Your task to perform on an android device: turn on data saver in the chrome app Image 0: 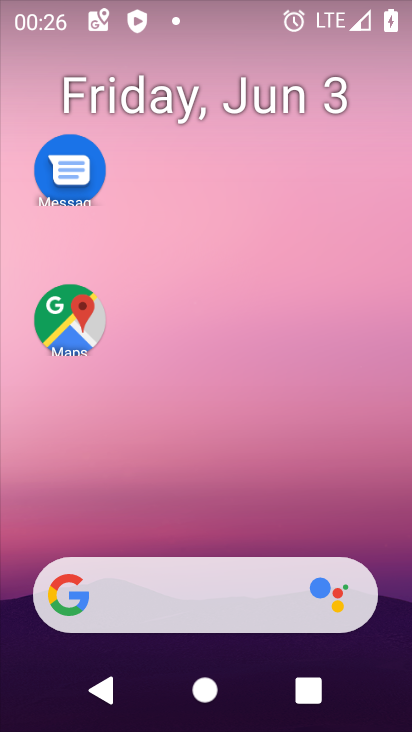
Step 0: press home button
Your task to perform on an android device: turn on data saver in the chrome app Image 1: 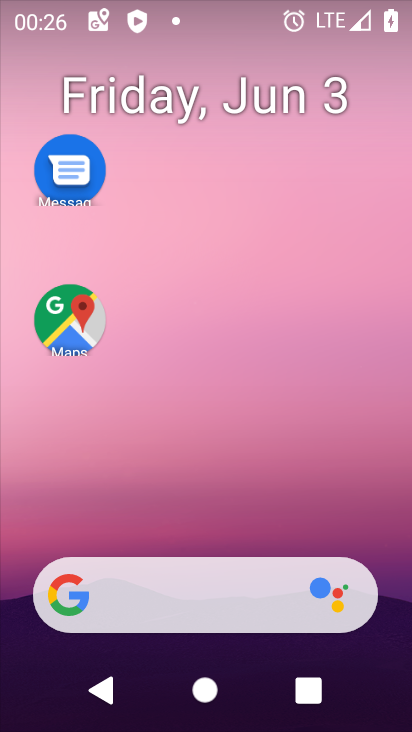
Step 1: drag from (328, 502) to (297, 14)
Your task to perform on an android device: turn on data saver in the chrome app Image 2: 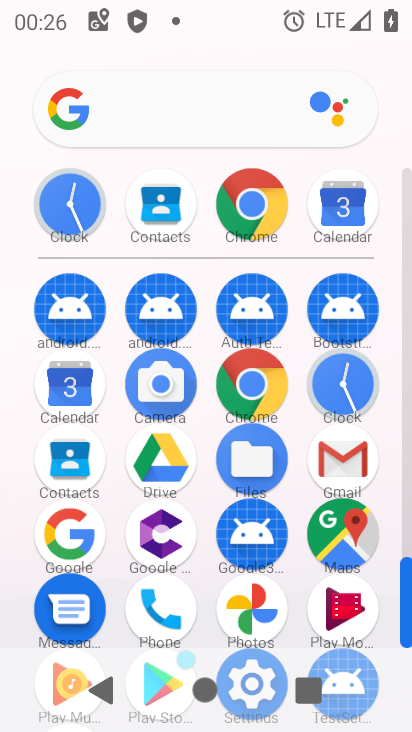
Step 2: click (257, 377)
Your task to perform on an android device: turn on data saver in the chrome app Image 3: 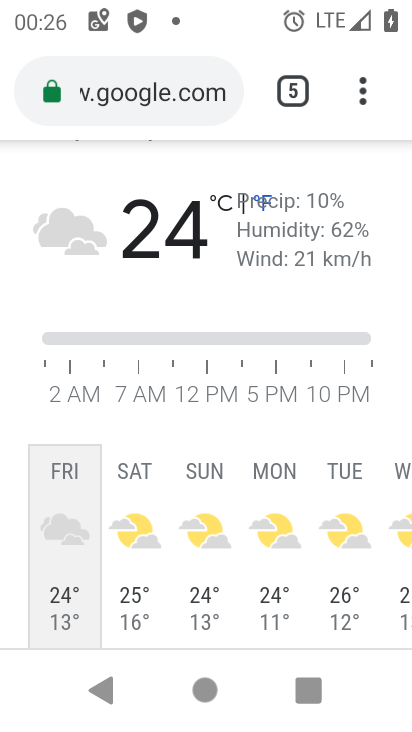
Step 3: press home button
Your task to perform on an android device: turn on data saver in the chrome app Image 4: 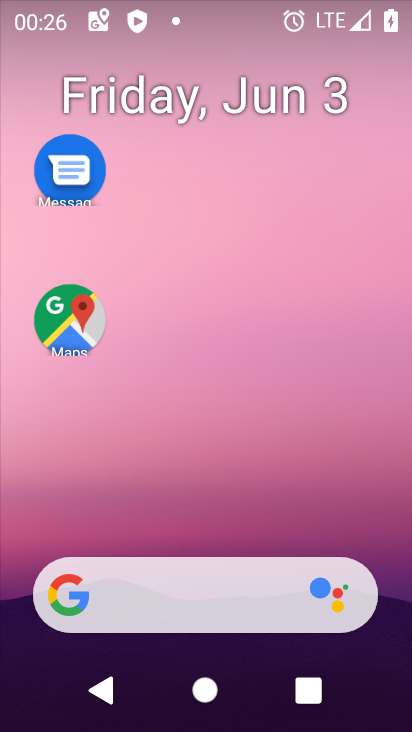
Step 4: drag from (257, 605) to (238, 88)
Your task to perform on an android device: turn on data saver in the chrome app Image 5: 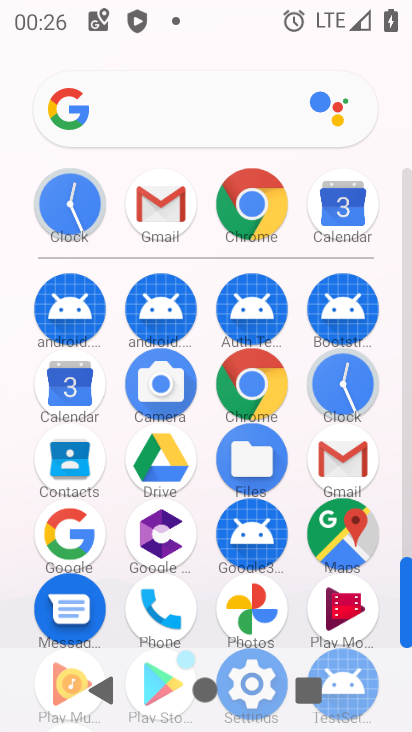
Step 5: click (264, 205)
Your task to perform on an android device: turn on data saver in the chrome app Image 6: 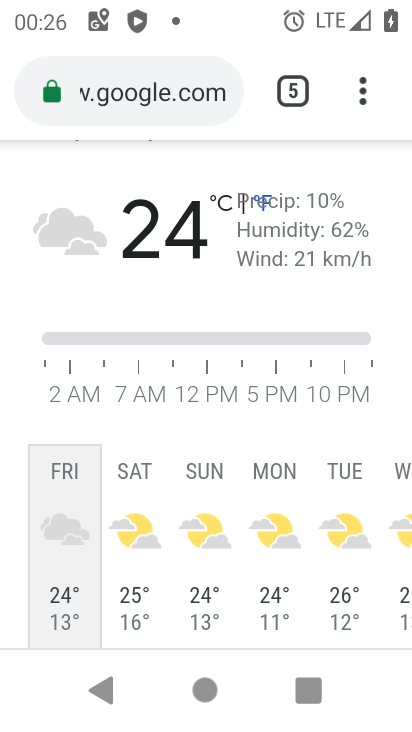
Step 6: click (352, 80)
Your task to perform on an android device: turn on data saver in the chrome app Image 7: 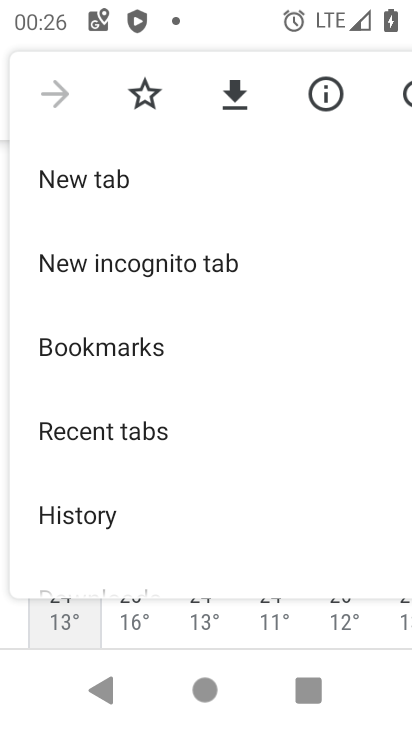
Step 7: drag from (154, 574) to (198, 191)
Your task to perform on an android device: turn on data saver in the chrome app Image 8: 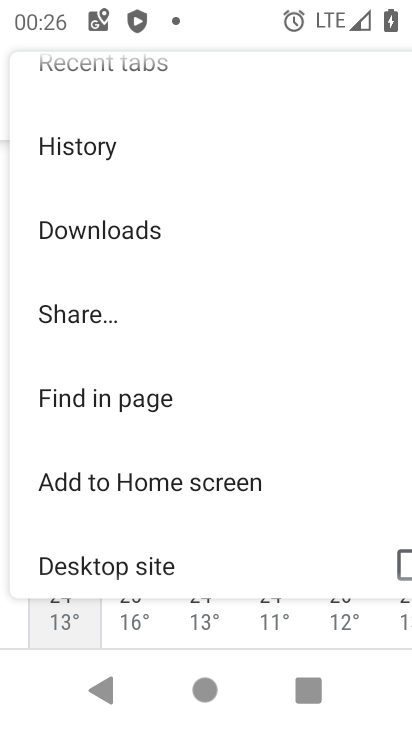
Step 8: drag from (154, 510) to (246, 144)
Your task to perform on an android device: turn on data saver in the chrome app Image 9: 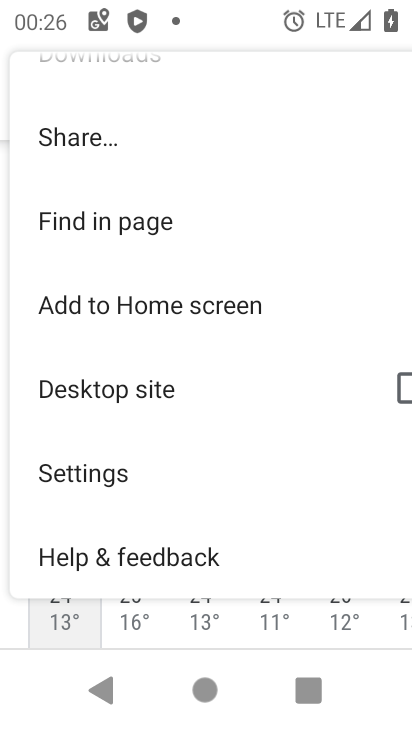
Step 9: click (110, 481)
Your task to perform on an android device: turn on data saver in the chrome app Image 10: 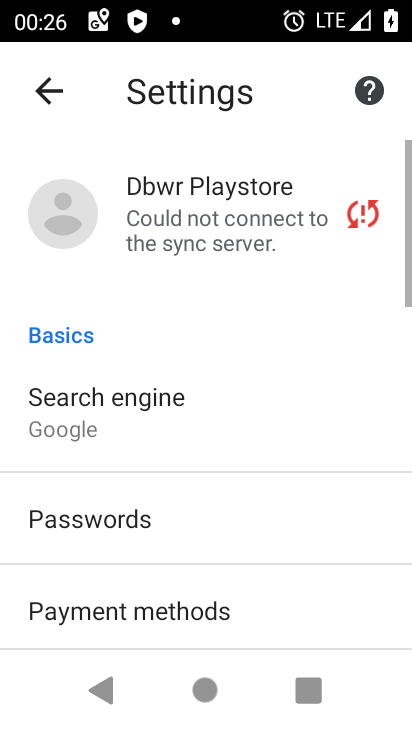
Step 10: drag from (243, 583) to (316, 131)
Your task to perform on an android device: turn on data saver in the chrome app Image 11: 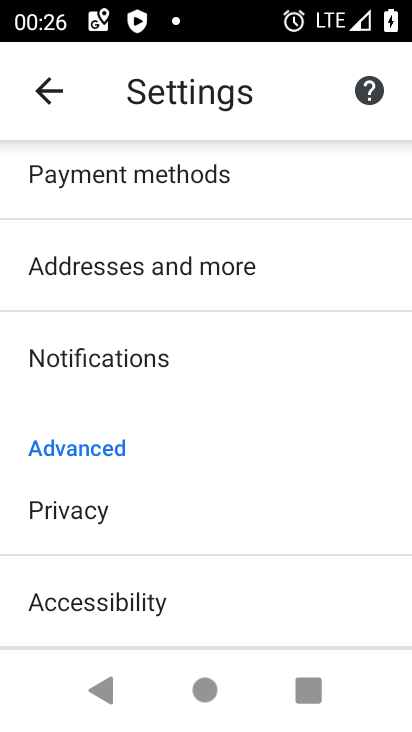
Step 11: drag from (286, 419) to (354, 157)
Your task to perform on an android device: turn on data saver in the chrome app Image 12: 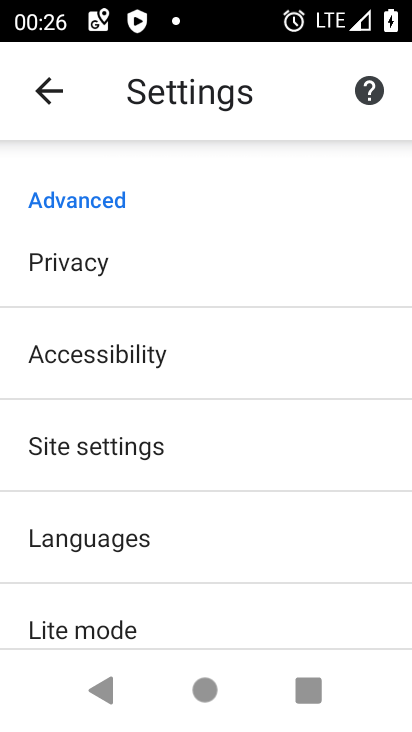
Step 12: drag from (170, 593) to (285, 278)
Your task to perform on an android device: turn on data saver in the chrome app Image 13: 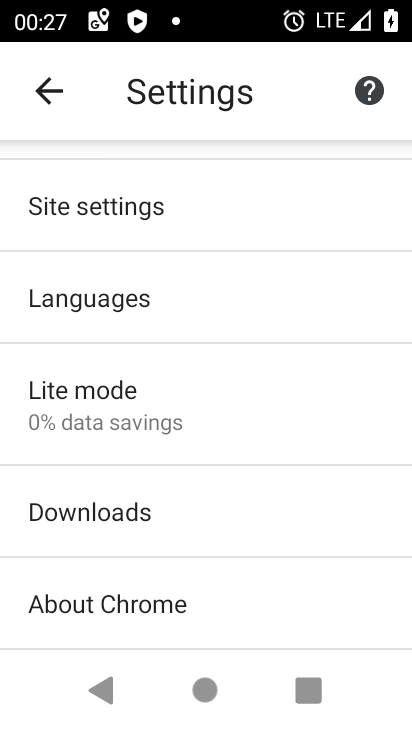
Step 13: click (81, 396)
Your task to perform on an android device: turn on data saver in the chrome app Image 14: 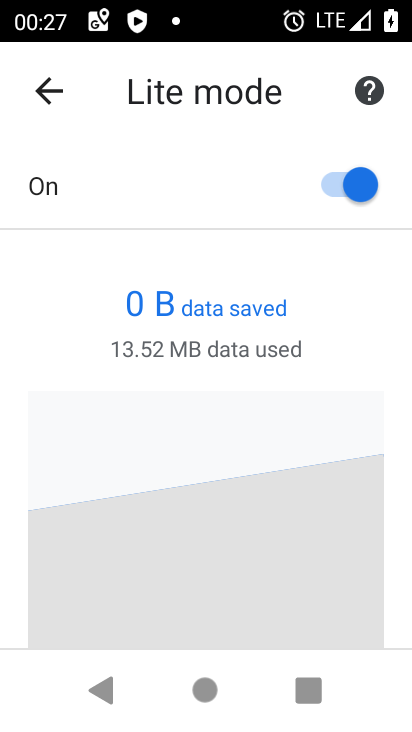
Step 14: task complete